Your task to perform on an android device: see creations saved in the google photos Image 0: 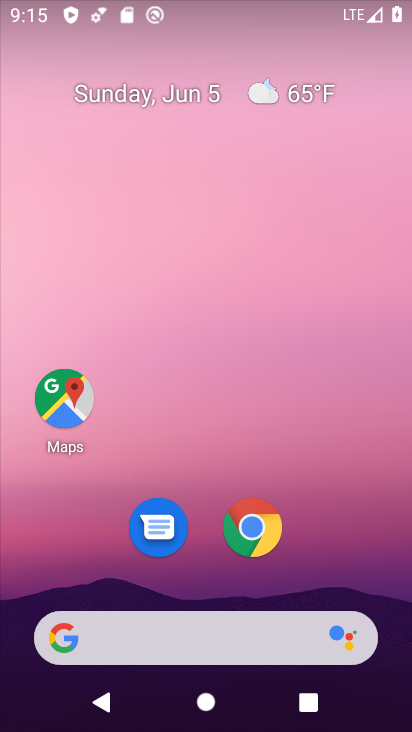
Step 0: drag from (180, 608) to (260, 81)
Your task to perform on an android device: see creations saved in the google photos Image 1: 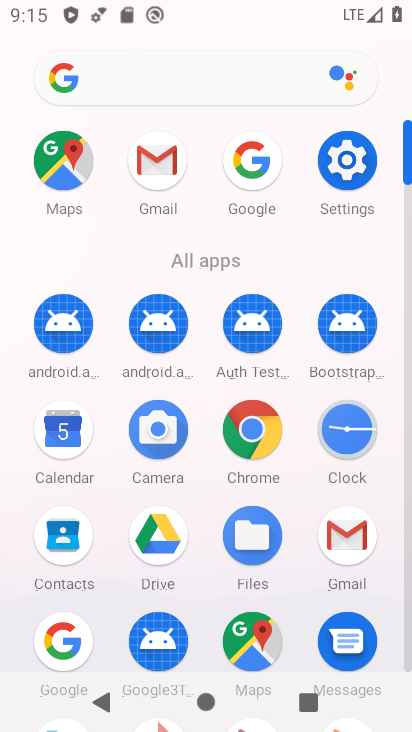
Step 1: drag from (213, 594) to (283, 96)
Your task to perform on an android device: see creations saved in the google photos Image 2: 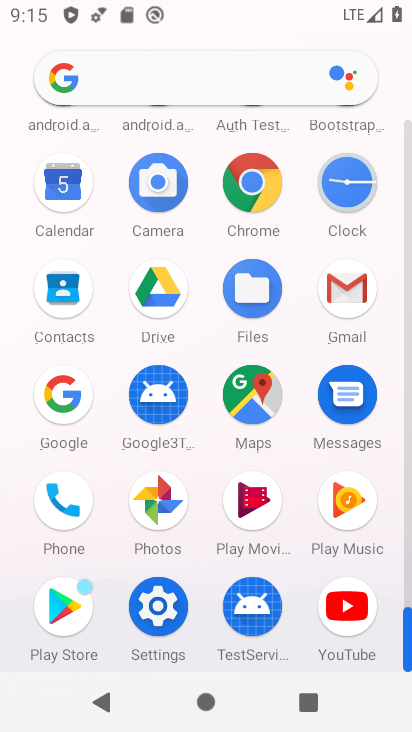
Step 2: click (164, 506)
Your task to perform on an android device: see creations saved in the google photos Image 3: 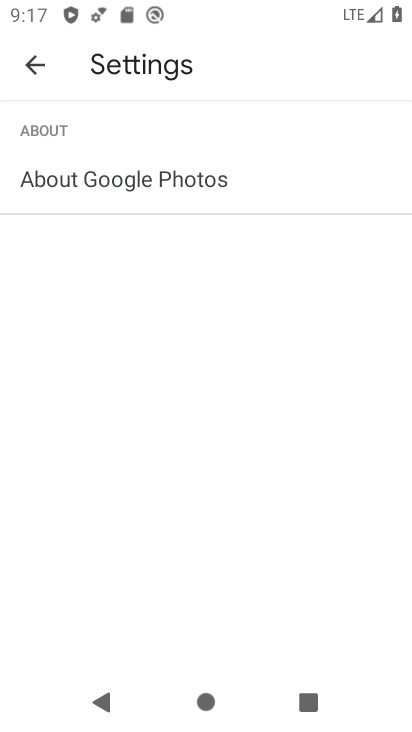
Step 3: press back button
Your task to perform on an android device: see creations saved in the google photos Image 4: 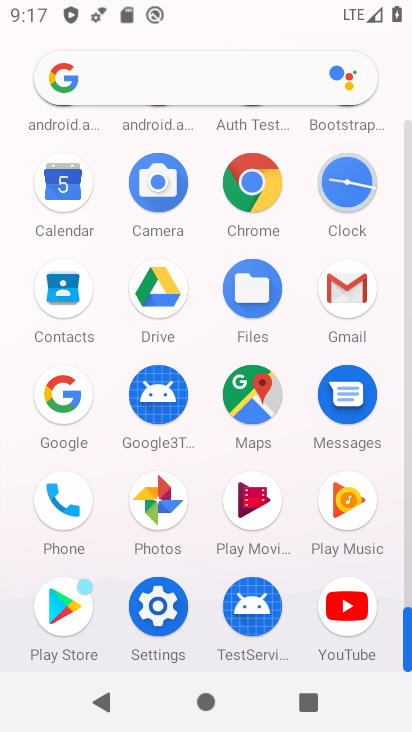
Step 4: click (165, 505)
Your task to perform on an android device: see creations saved in the google photos Image 5: 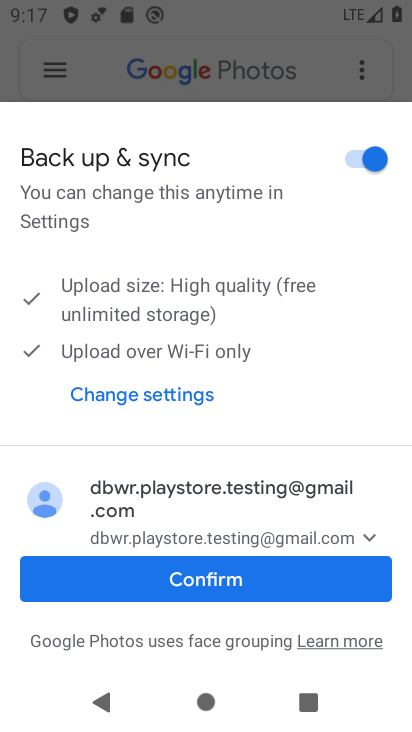
Step 5: click (193, 584)
Your task to perform on an android device: see creations saved in the google photos Image 6: 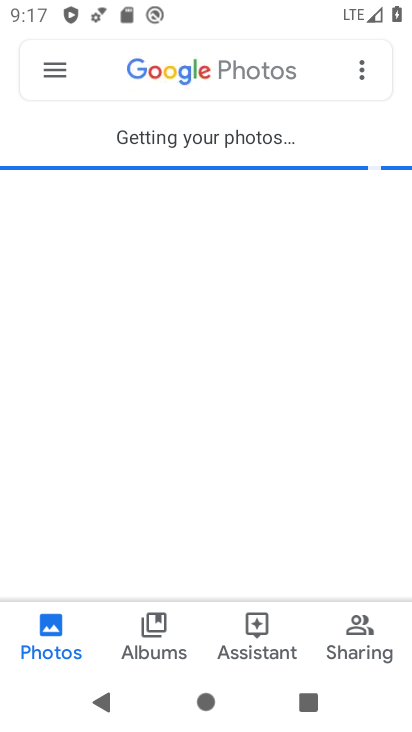
Step 6: click (64, 61)
Your task to perform on an android device: see creations saved in the google photos Image 7: 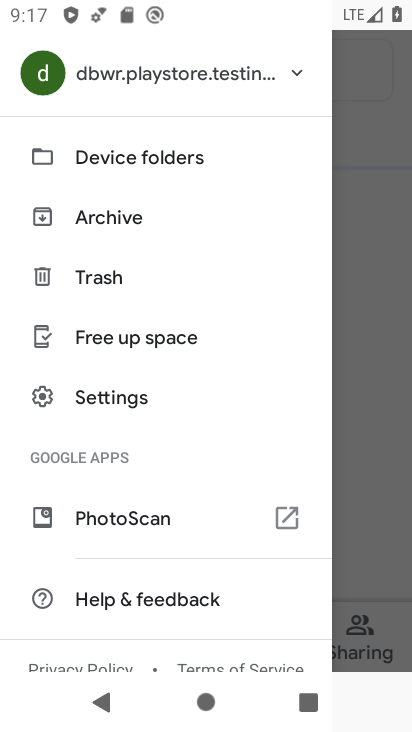
Step 7: click (169, 209)
Your task to perform on an android device: see creations saved in the google photos Image 8: 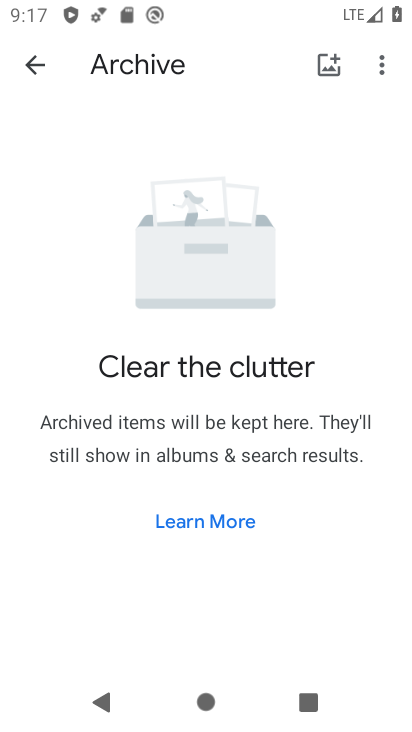
Step 8: task complete